Your task to perform on an android device: change the clock style Image 0: 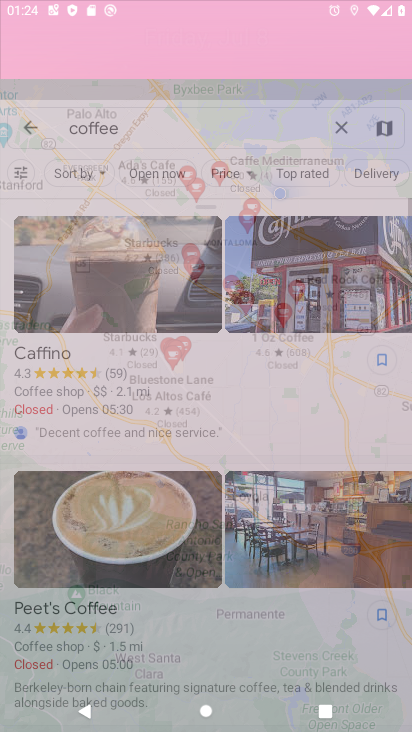
Step 0: click (289, 141)
Your task to perform on an android device: change the clock style Image 1: 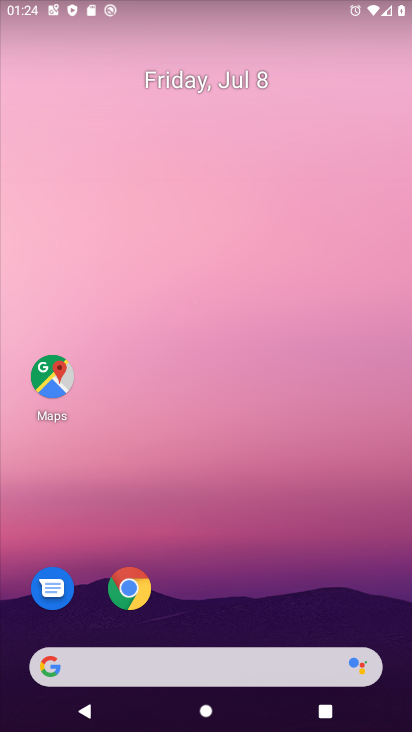
Step 1: drag from (220, 631) to (215, 81)
Your task to perform on an android device: change the clock style Image 2: 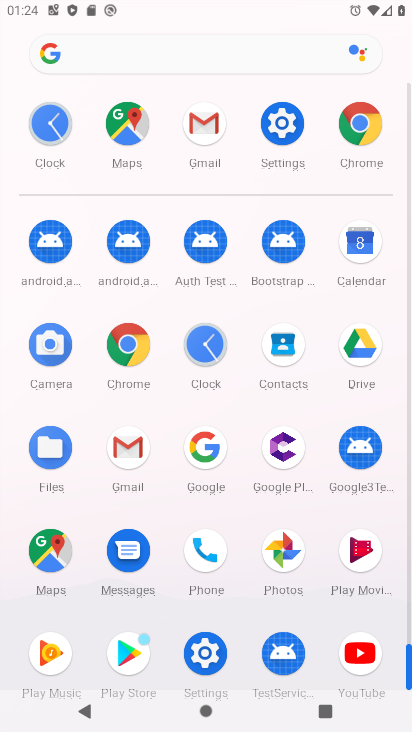
Step 2: click (207, 338)
Your task to perform on an android device: change the clock style Image 3: 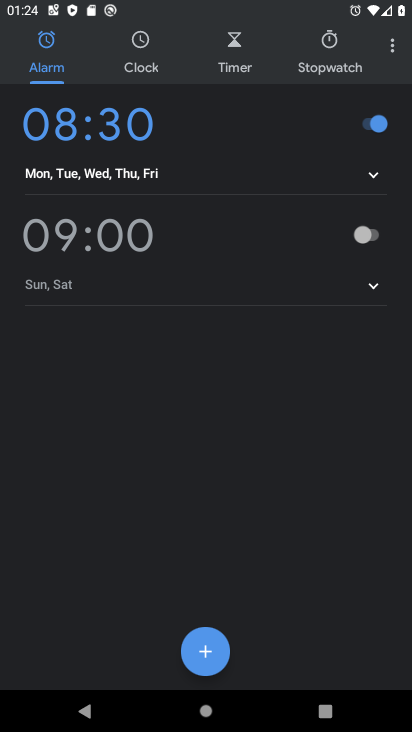
Step 3: click (392, 43)
Your task to perform on an android device: change the clock style Image 4: 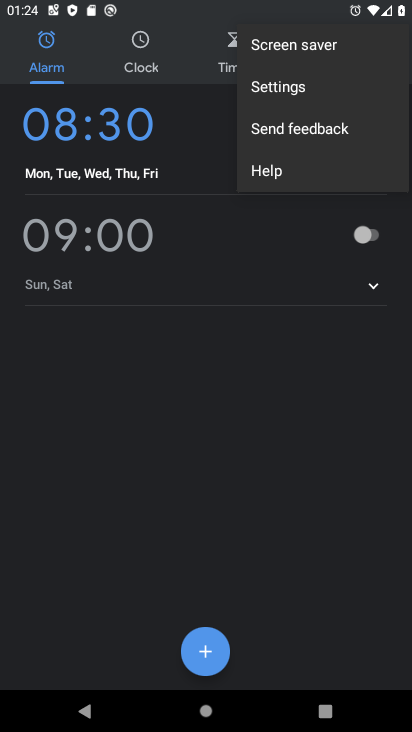
Step 4: click (304, 86)
Your task to perform on an android device: change the clock style Image 5: 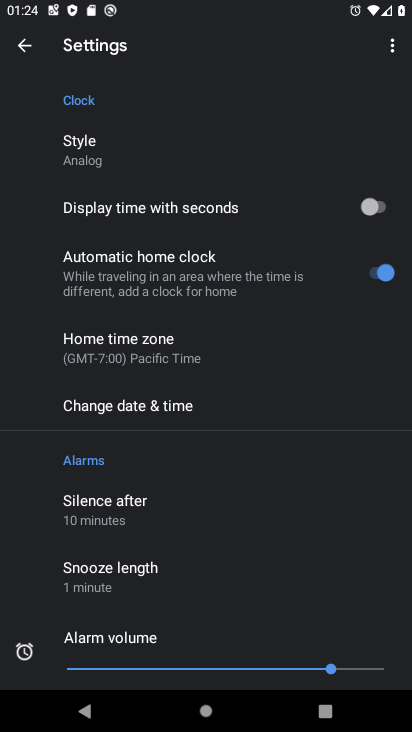
Step 5: click (122, 141)
Your task to perform on an android device: change the clock style Image 6: 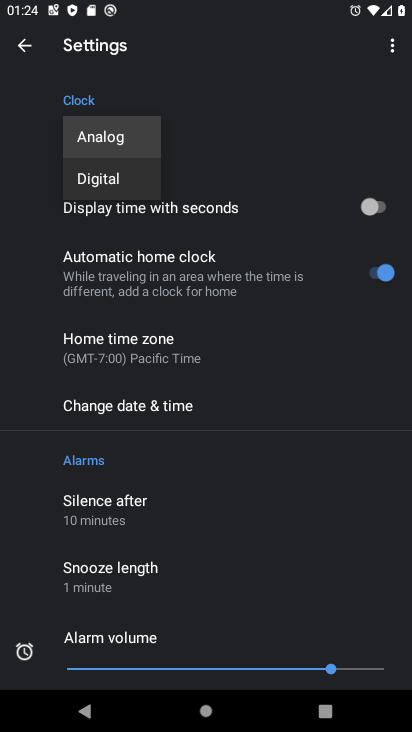
Step 6: click (90, 141)
Your task to perform on an android device: change the clock style Image 7: 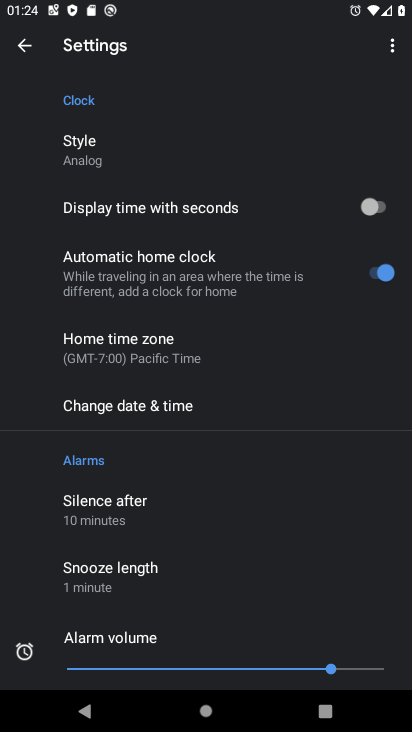
Step 7: click (90, 141)
Your task to perform on an android device: change the clock style Image 8: 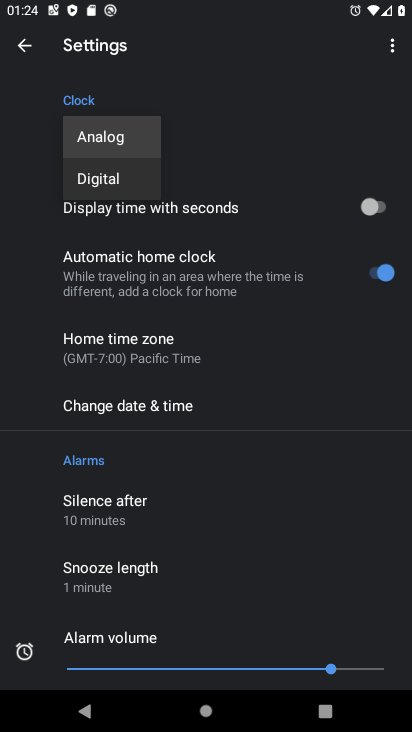
Step 8: click (88, 181)
Your task to perform on an android device: change the clock style Image 9: 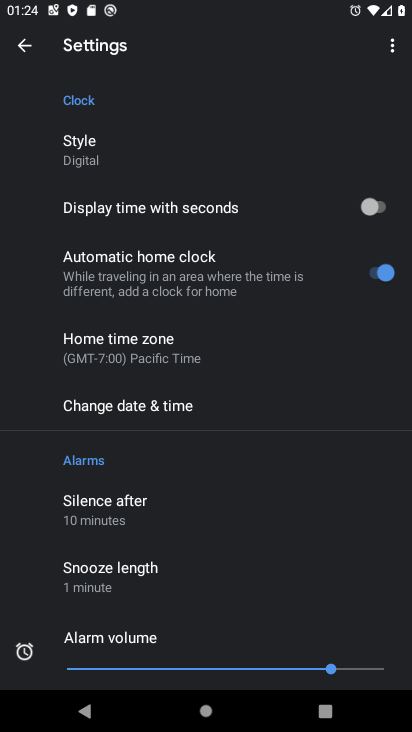
Step 9: task complete